Your task to perform on an android device: turn off location Image 0: 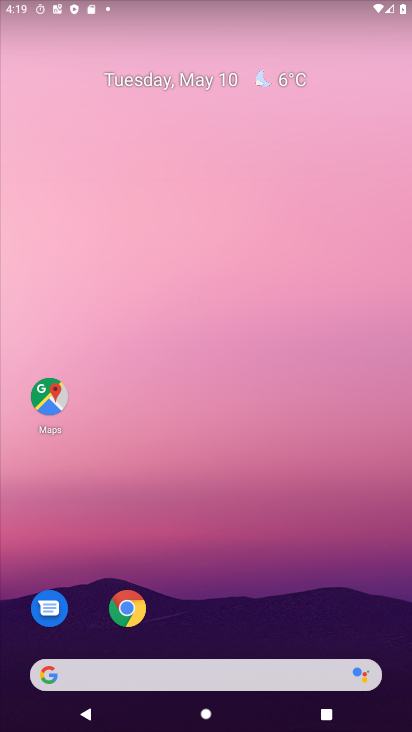
Step 0: drag from (368, 649) to (372, 120)
Your task to perform on an android device: turn off location Image 1: 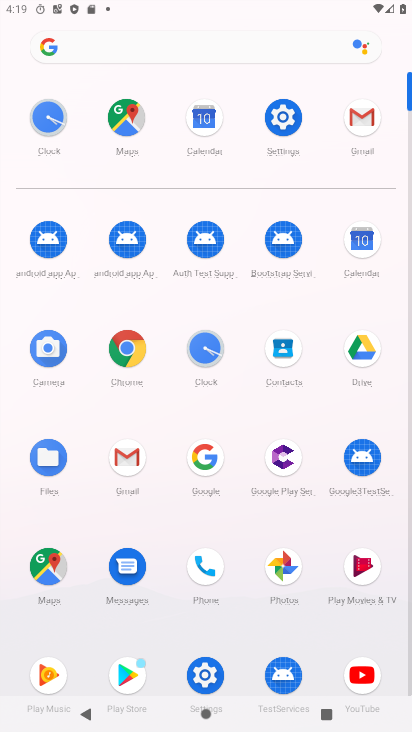
Step 1: click (280, 132)
Your task to perform on an android device: turn off location Image 2: 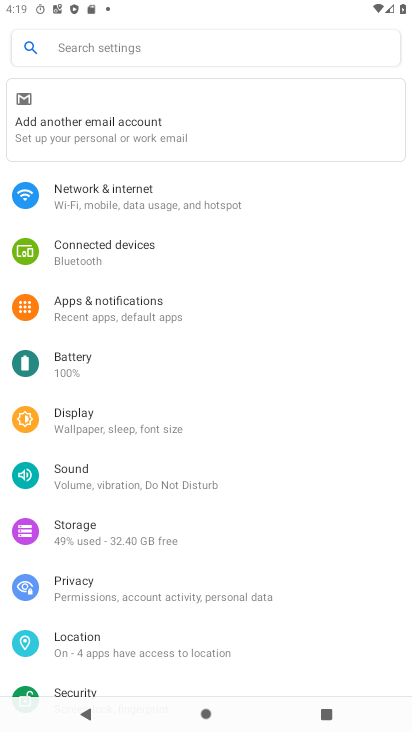
Step 2: click (75, 633)
Your task to perform on an android device: turn off location Image 3: 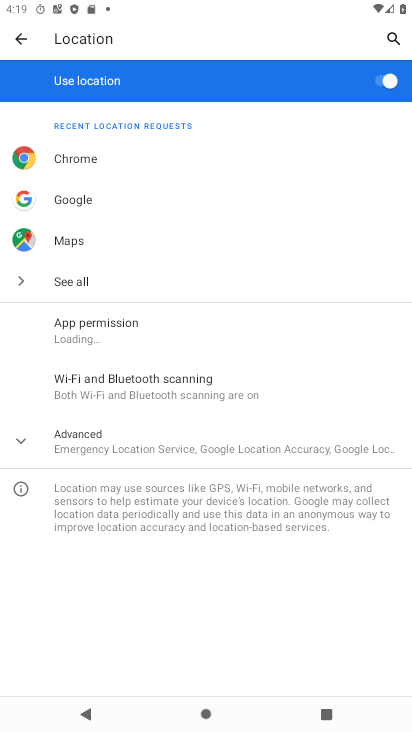
Step 3: click (377, 85)
Your task to perform on an android device: turn off location Image 4: 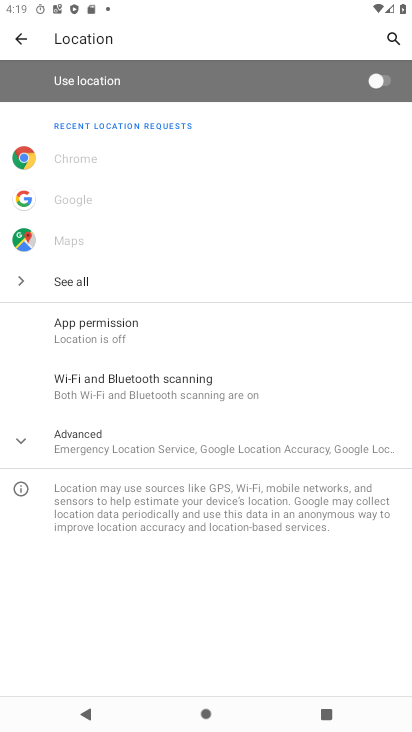
Step 4: task complete